Your task to perform on an android device: Do I have any events today? Image 0: 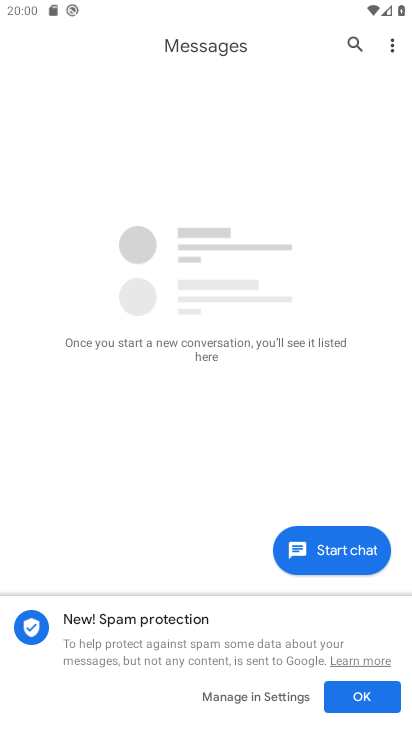
Step 0: press home button
Your task to perform on an android device: Do I have any events today? Image 1: 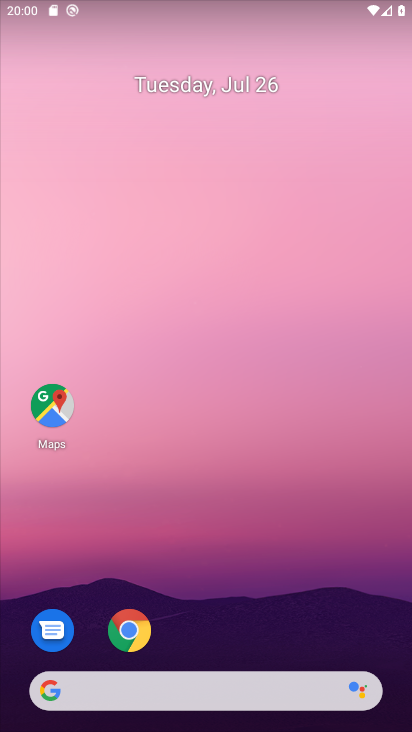
Step 1: drag from (393, 713) to (321, 59)
Your task to perform on an android device: Do I have any events today? Image 2: 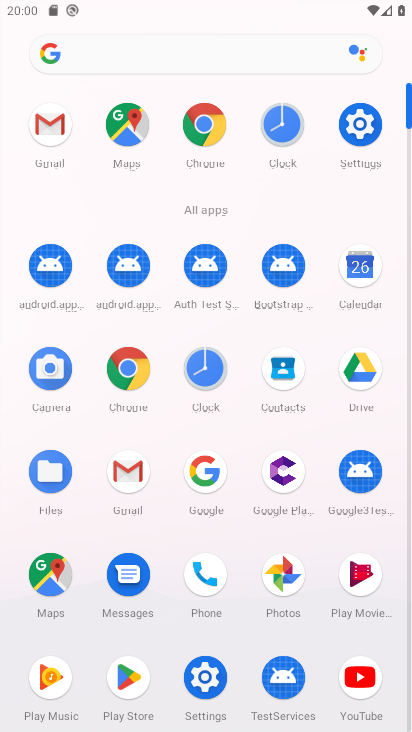
Step 2: click (344, 274)
Your task to perform on an android device: Do I have any events today? Image 3: 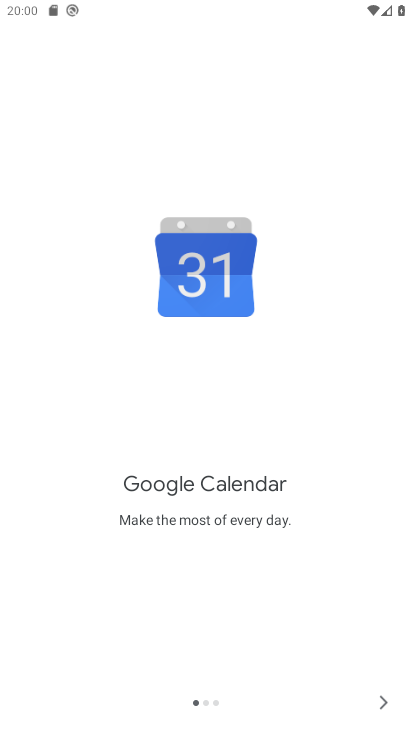
Step 3: click (374, 704)
Your task to perform on an android device: Do I have any events today? Image 4: 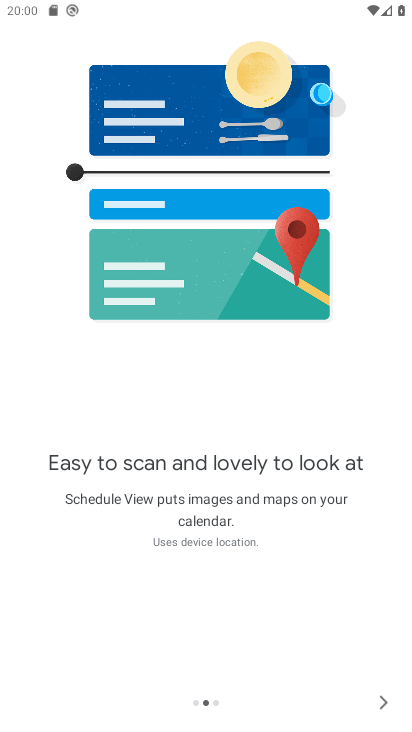
Step 4: click (374, 704)
Your task to perform on an android device: Do I have any events today? Image 5: 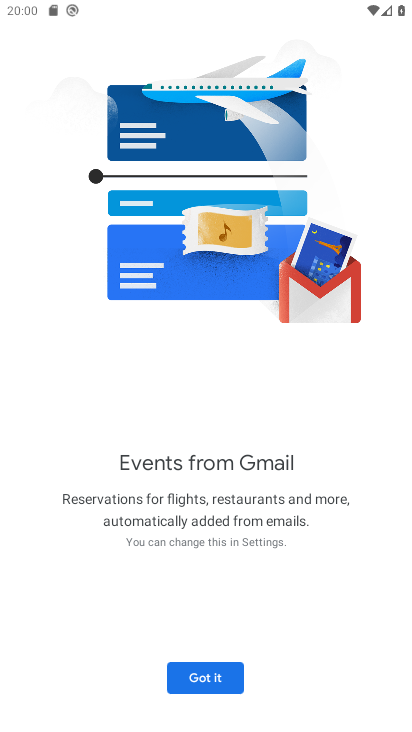
Step 5: click (220, 670)
Your task to perform on an android device: Do I have any events today? Image 6: 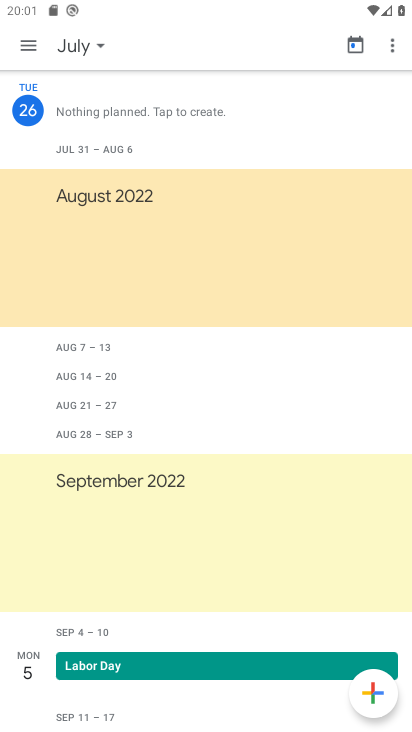
Step 6: click (26, 45)
Your task to perform on an android device: Do I have any events today? Image 7: 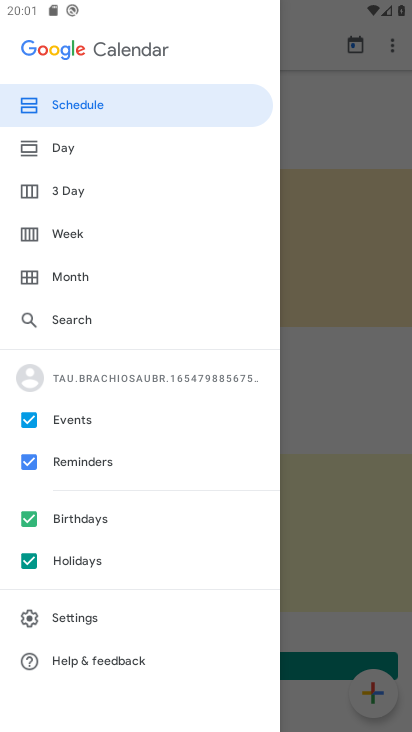
Step 7: click (69, 144)
Your task to perform on an android device: Do I have any events today? Image 8: 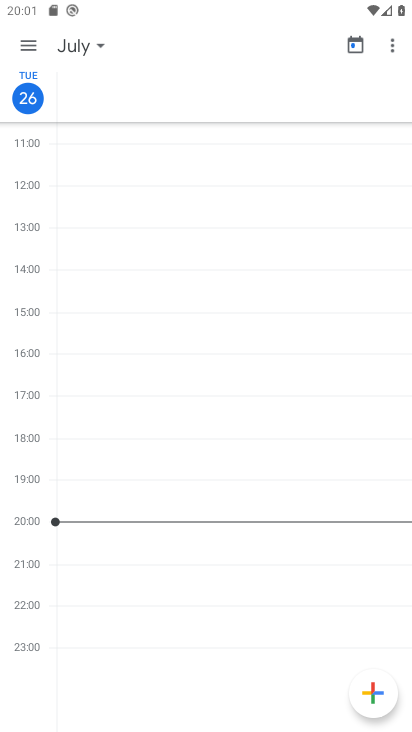
Step 8: click (22, 43)
Your task to perform on an android device: Do I have any events today? Image 9: 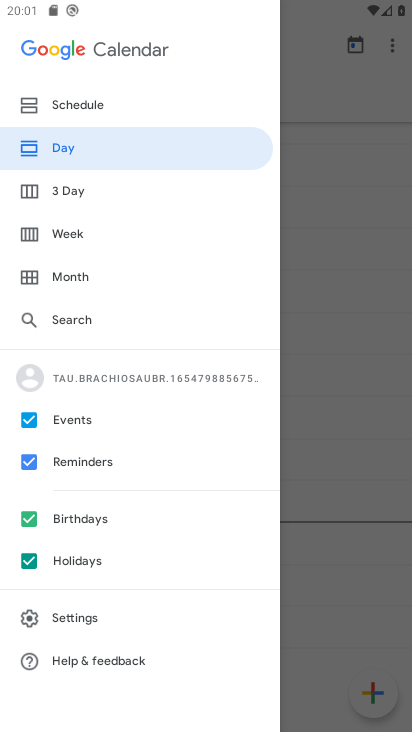
Step 9: click (64, 102)
Your task to perform on an android device: Do I have any events today? Image 10: 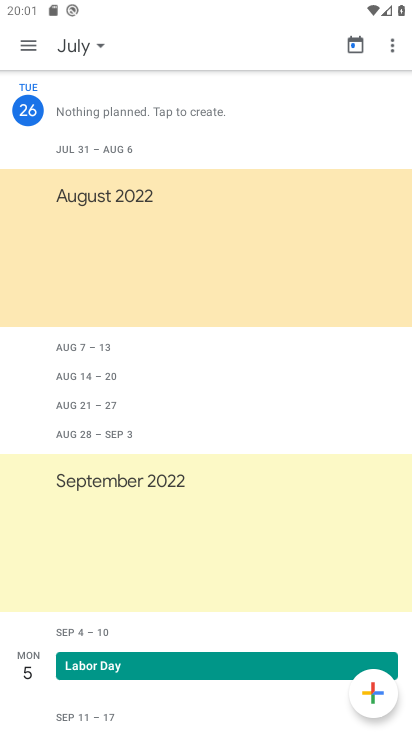
Step 10: task complete